Your task to perform on an android device: open app "Life360: Find Family & Friends" (install if not already installed) Image 0: 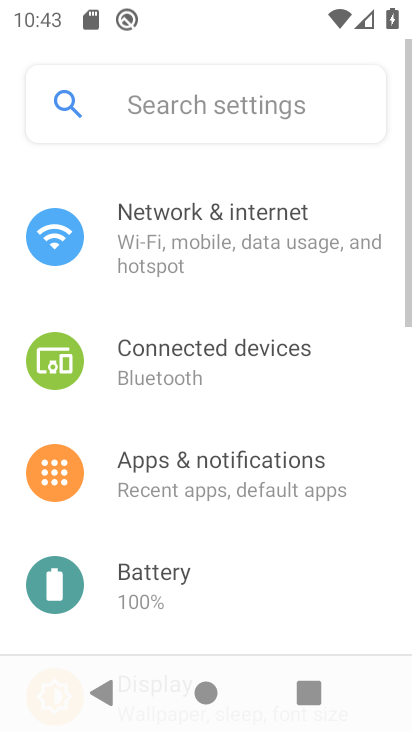
Step 0: drag from (232, 719) to (220, 117)
Your task to perform on an android device: open app "Life360: Find Family & Friends" (install if not already installed) Image 1: 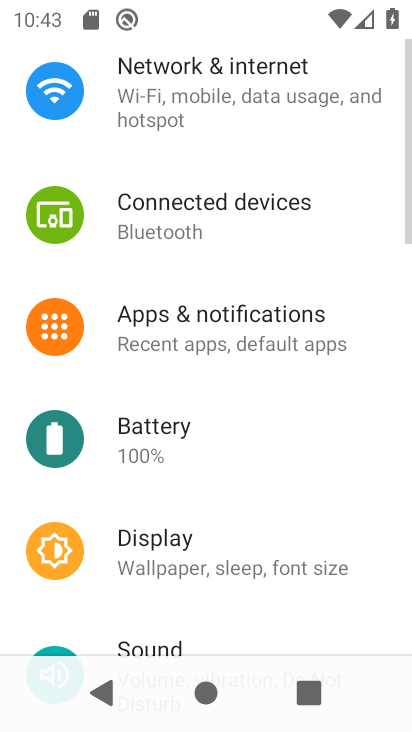
Step 1: press home button
Your task to perform on an android device: open app "Life360: Find Family & Friends" (install if not already installed) Image 2: 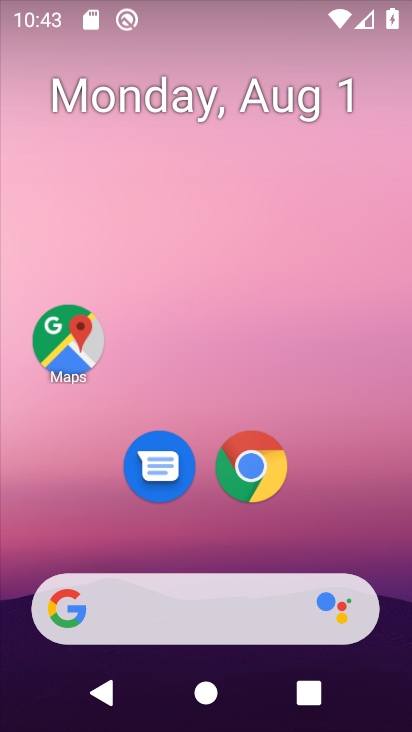
Step 2: drag from (233, 720) to (234, 132)
Your task to perform on an android device: open app "Life360: Find Family & Friends" (install if not already installed) Image 3: 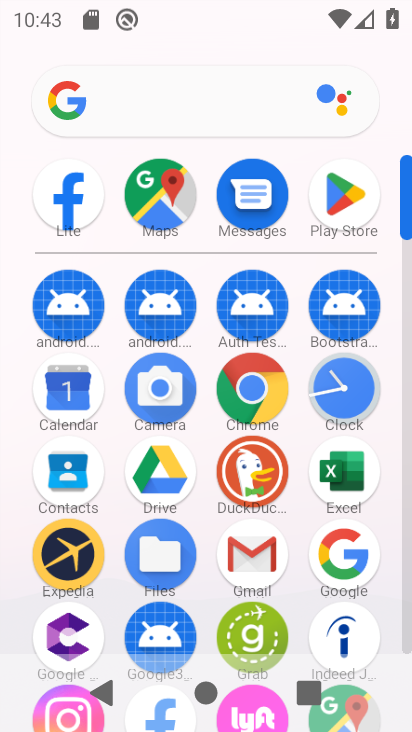
Step 3: click (342, 199)
Your task to perform on an android device: open app "Life360: Find Family & Friends" (install if not already installed) Image 4: 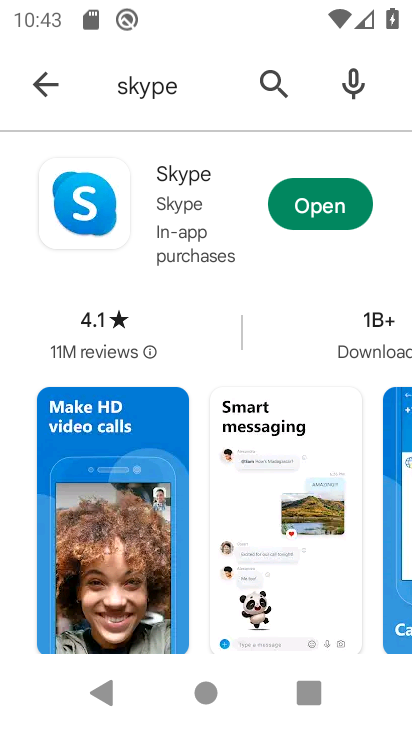
Step 4: click (279, 76)
Your task to perform on an android device: open app "Life360: Find Family & Friends" (install if not already installed) Image 5: 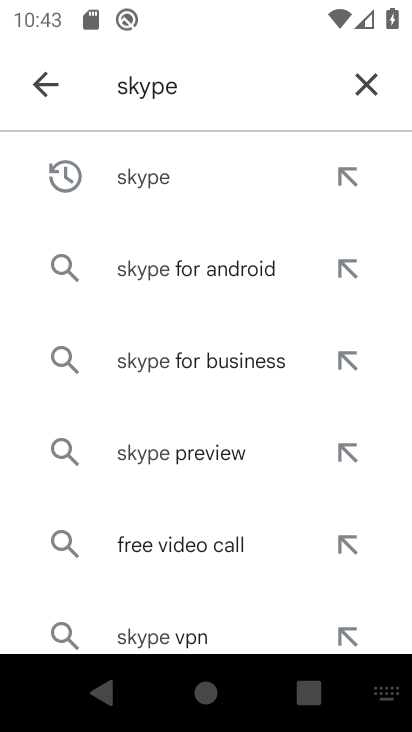
Step 5: click (369, 79)
Your task to perform on an android device: open app "Life360: Find Family & Friends" (install if not already installed) Image 6: 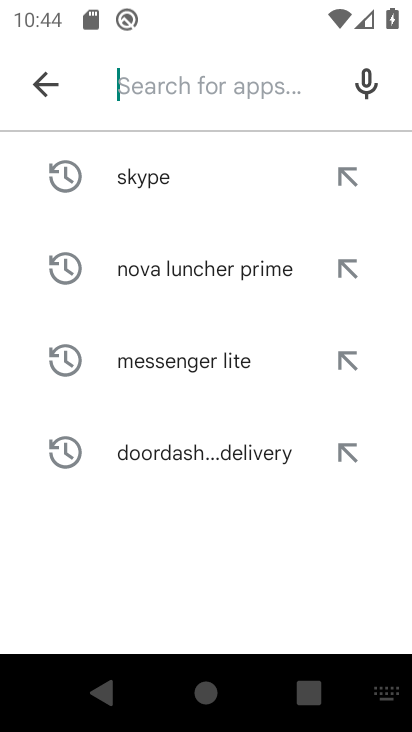
Step 6: type "Life360: Find Family & Friends"
Your task to perform on an android device: open app "Life360: Find Family & Friends" (install if not already installed) Image 7: 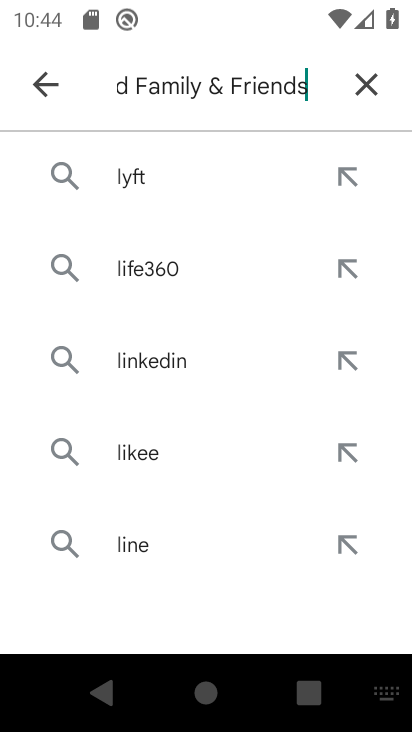
Step 7: type ""
Your task to perform on an android device: open app "Life360: Find Family & Friends" (install if not already installed) Image 8: 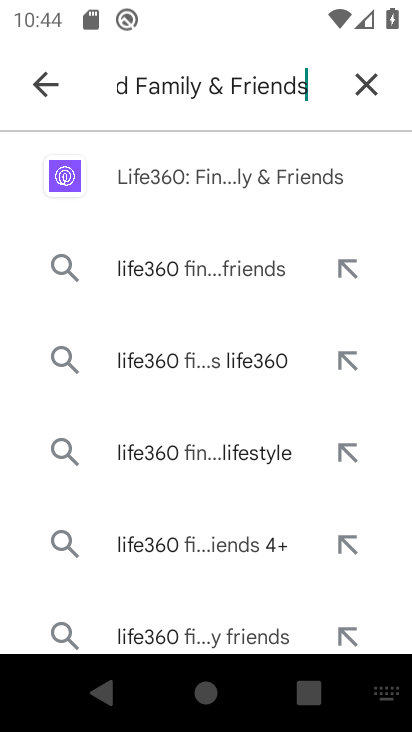
Step 8: click (179, 176)
Your task to perform on an android device: open app "Life360: Find Family & Friends" (install if not already installed) Image 9: 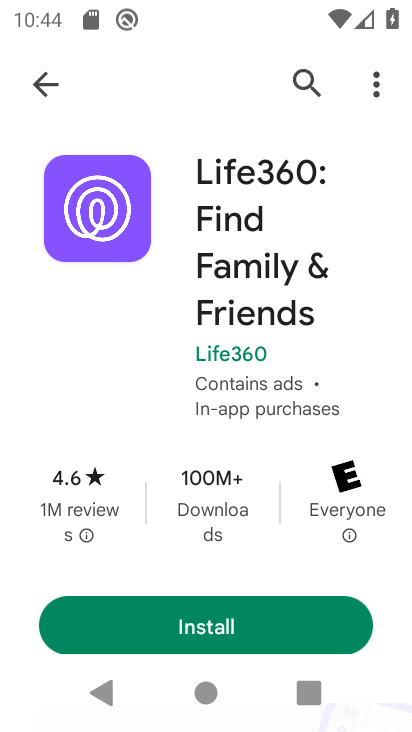
Step 9: click (200, 631)
Your task to perform on an android device: open app "Life360: Find Family & Friends" (install if not already installed) Image 10: 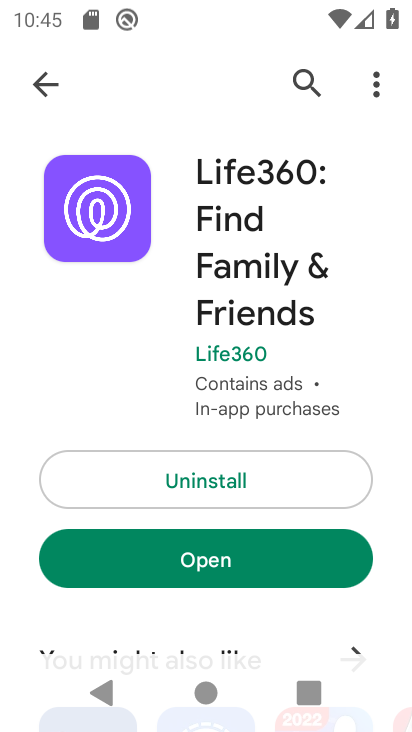
Step 10: click (196, 550)
Your task to perform on an android device: open app "Life360: Find Family & Friends" (install if not already installed) Image 11: 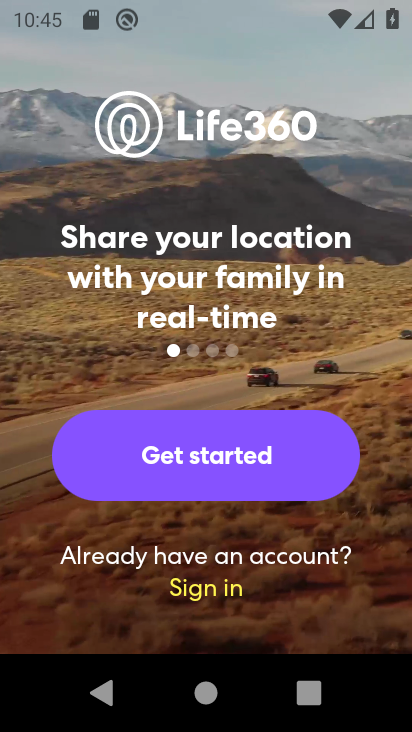
Step 11: task complete